Your task to perform on an android device: find snoozed emails in the gmail app Image 0: 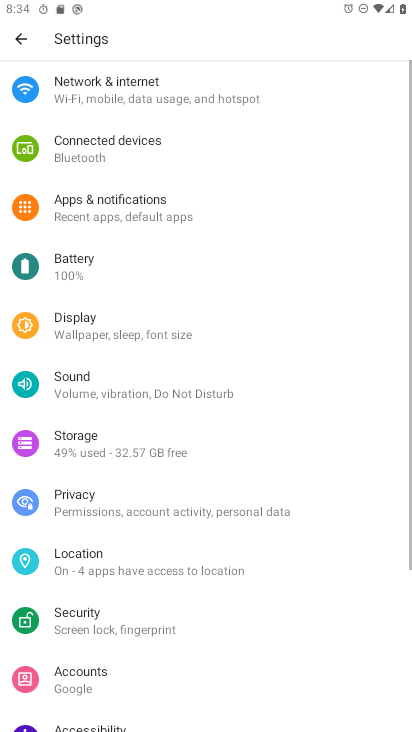
Step 0: press home button
Your task to perform on an android device: find snoozed emails in the gmail app Image 1: 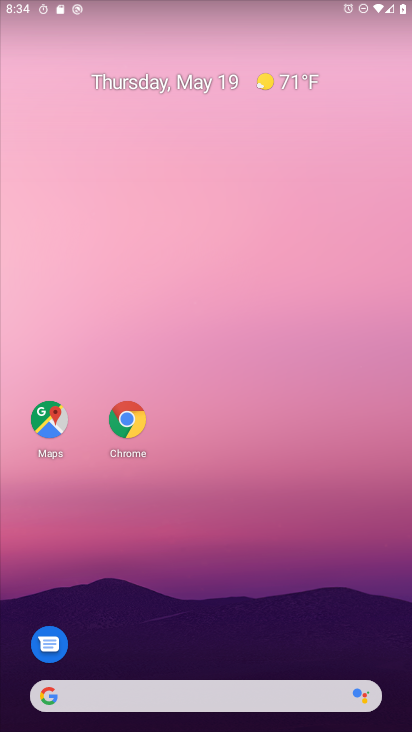
Step 1: drag from (161, 574) to (266, 306)
Your task to perform on an android device: find snoozed emails in the gmail app Image 2: 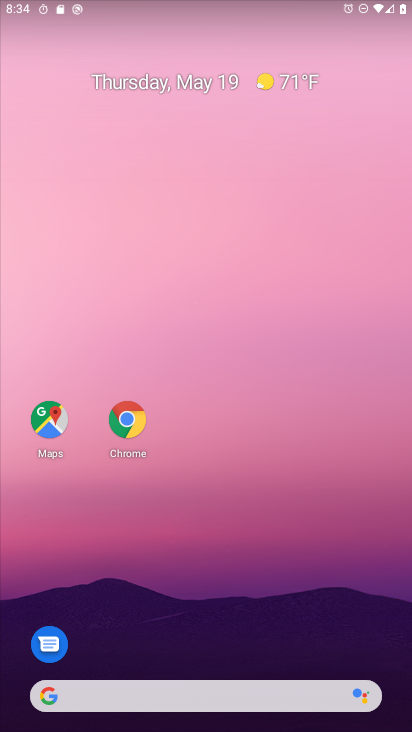
Step 2: drag from (206, 550) to (226, 331)
Your task to perform on an android device: find snoozed emails in the gmail app Image 3: 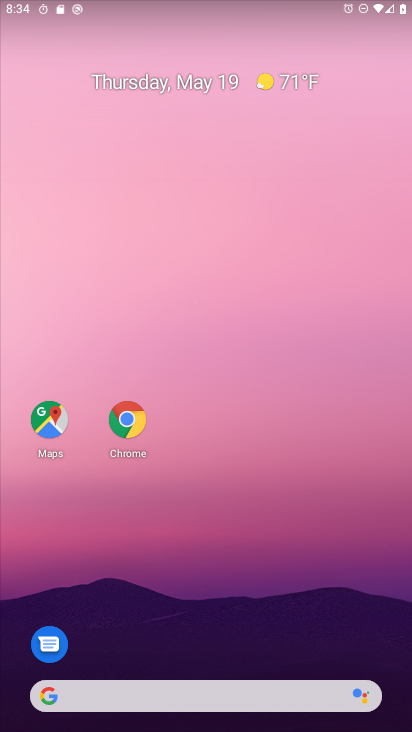
Step 3: drag from (210, 672) to (206, 248)
Your task to perform on an android device: find snoozed emails in the gmail app Image 4: 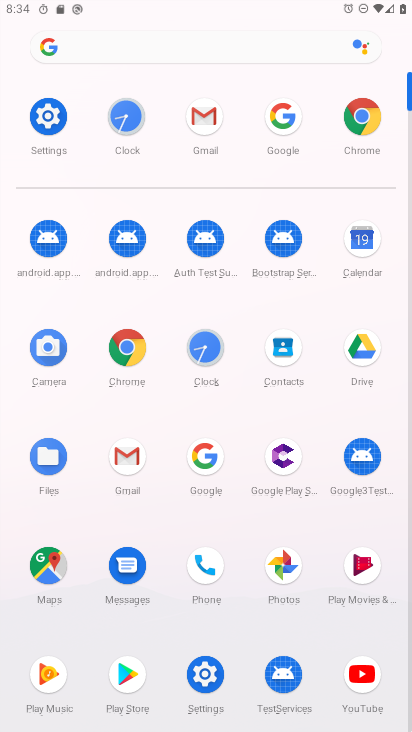
Step 4: click (200, 119)
Your task to perform on an android device: find snoozed emails in the gmail app Image 5: 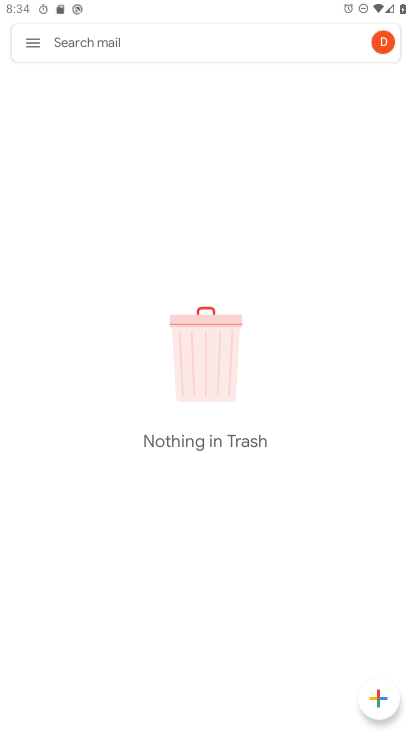
Step 5: click (34, 39)
Your task to perform on an android device: find snoozed emails in the gmail app Image 6: 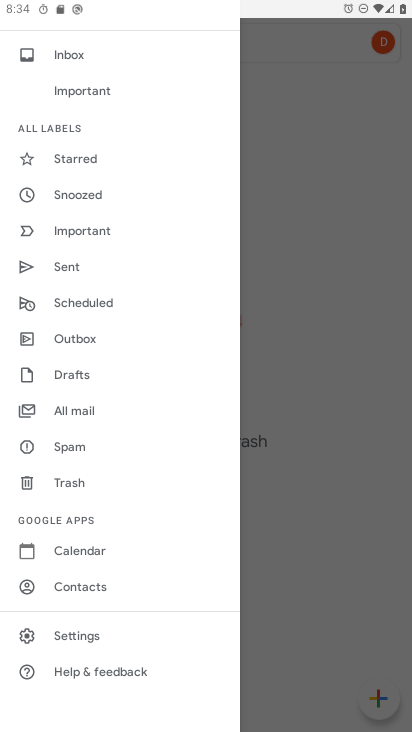
Step 6: click (98, 197)
Your task to perform on an android device: find snoozed emails in the gmail app Image 7: 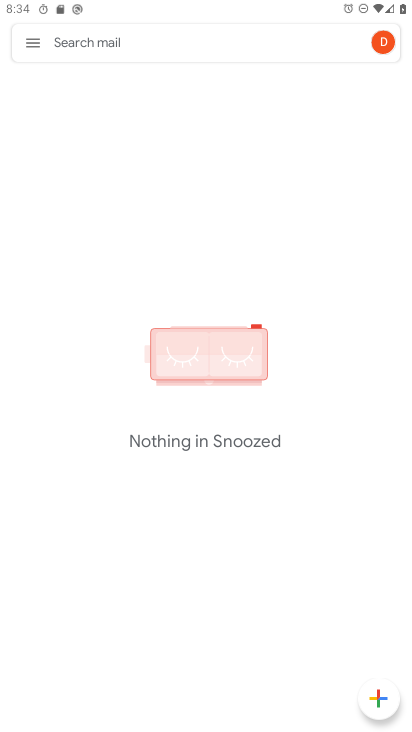
Step 7: task complete